Your task to perform on an android device: turn off sleep mode Image 0: 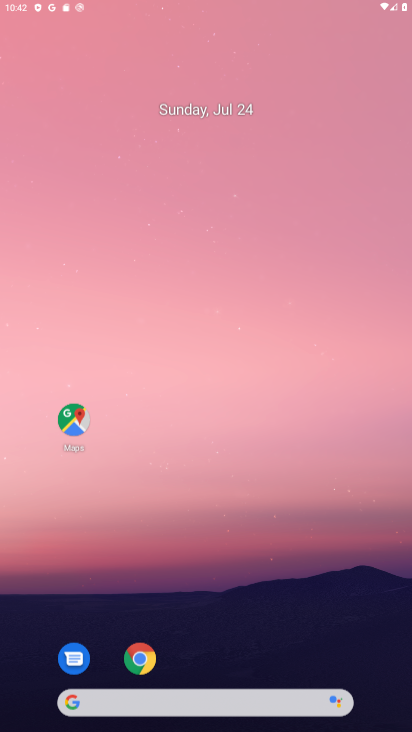
Step 0: drag from (235, 650) to (272, 337)
Your task to perform on an android device: turn off sleep mode Image 1: 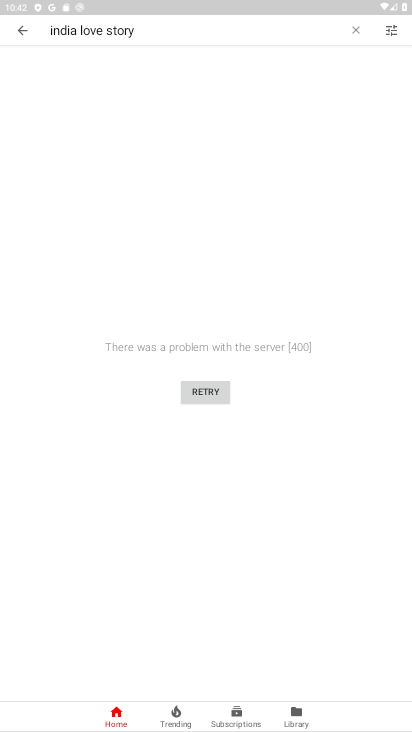
Step 1: press home button
Your task to perform on an android device: turn off sleep mode Image 2: 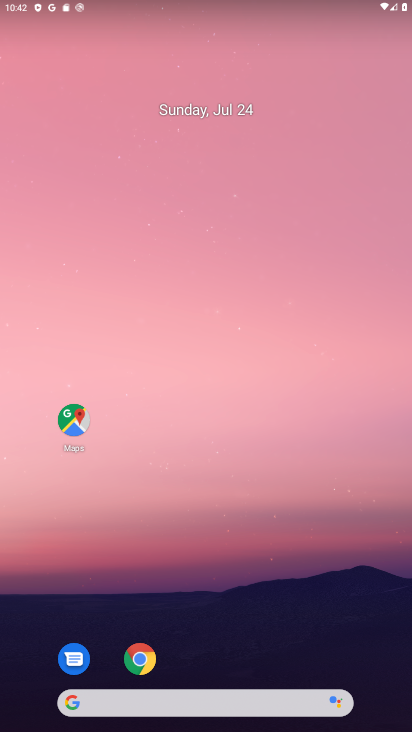
Step 2: drag from (211, 679) to (228, 415)
Your task to perform on an android device: turn off sleep mode Image 3: 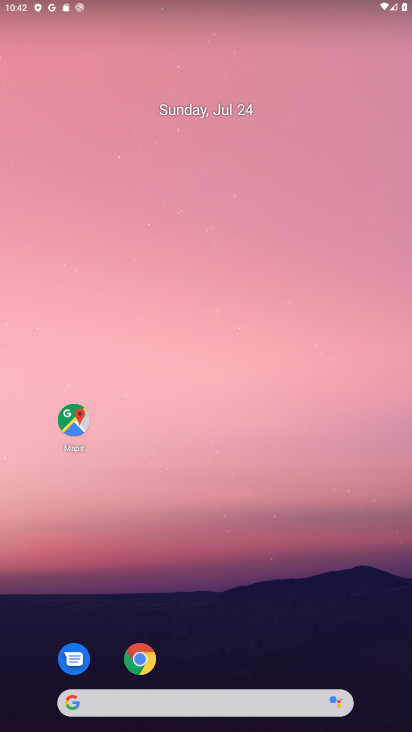
Step 3: drag from (170, 694) to (233, 197)
Your task to perform on an android device: turn off sleep mode Image 4: 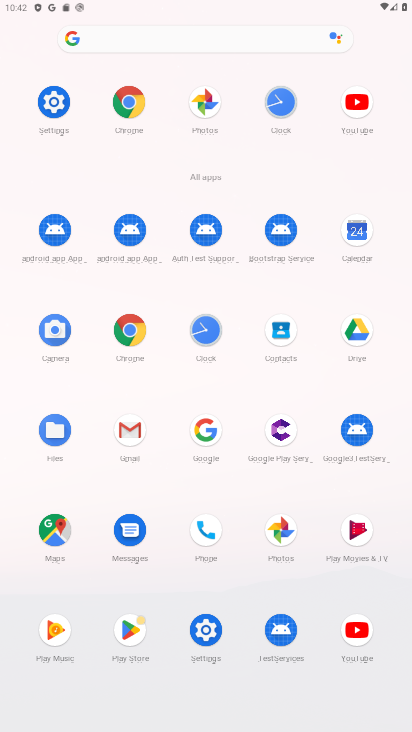
Step 4: click (55, 89)
Your task to perform on an android device: turn off sleep mode Image 5: 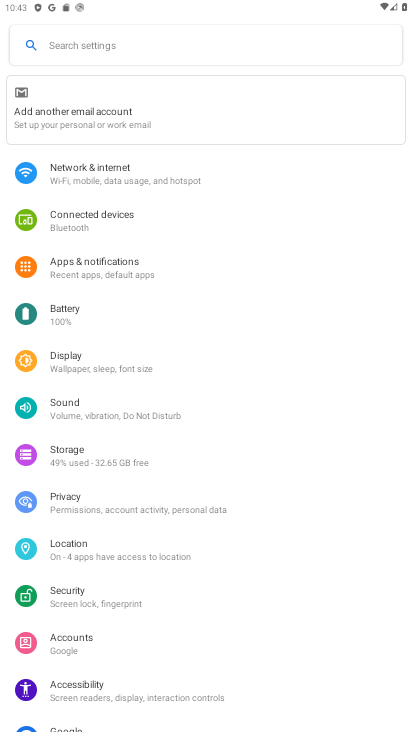
Step 5: task complete